Your task to perform on an android device: What's the weather? Image 0: 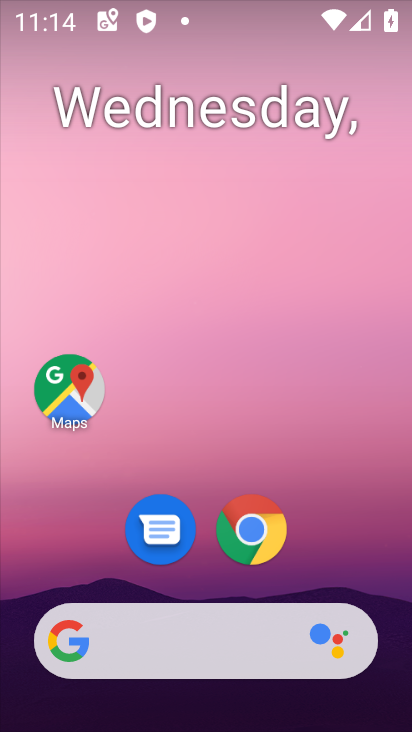
Step 0: drag from (196, 587) to (157, 93)
Your task to perform on an android device: What's the weather? Image 1: 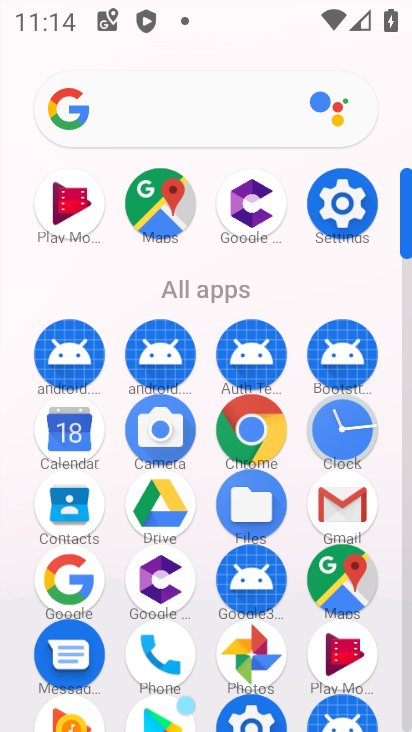
Step 1: click (63, 568)
Your task to perform on an android device: What's the weather? Image 2: 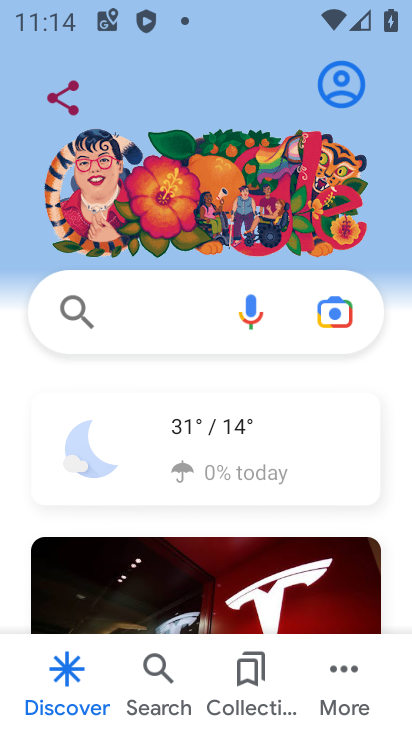
Step 2: drag from (120, 330) to (61, 330)
Your task to perform on an android device: What's the weather? Image 3: 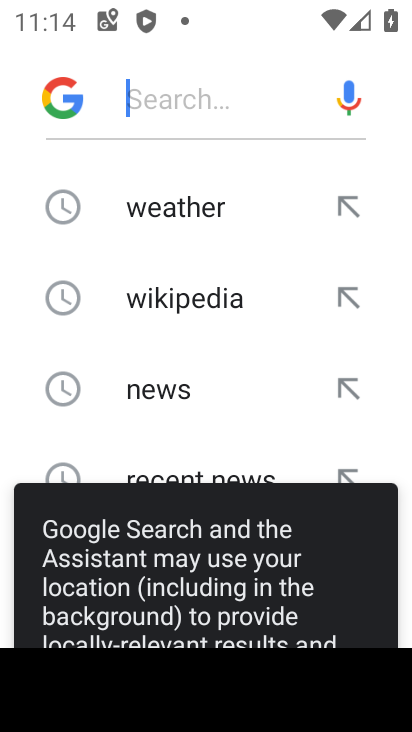
Step 3: click (149, 218)
Your task to perform on an android device: What's the weather? Image 4: 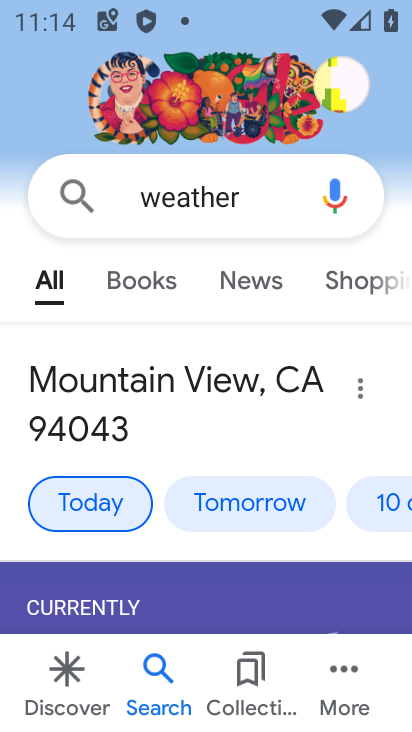
Step 4: task complete